Your task to perform on an android device: turn on airplane mode Image 0: 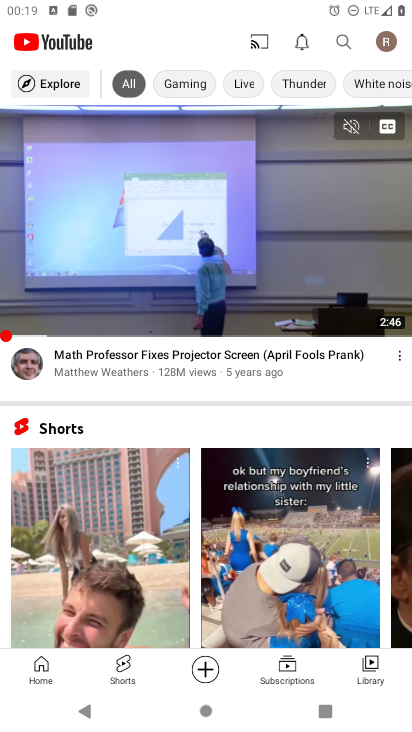
Step 0: press home button
Your task to perform on an android device: turn on airplane mode Image 1: 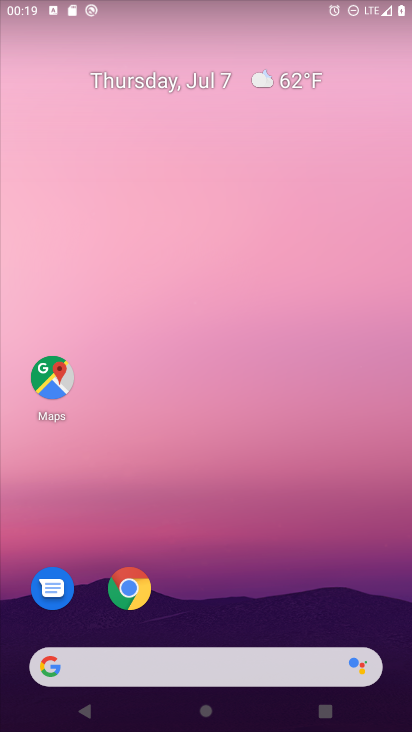
Step 1: drag from (369, 616) to (353, 61)
Your task to perform on an android device: turn on airplane mode Image 2: 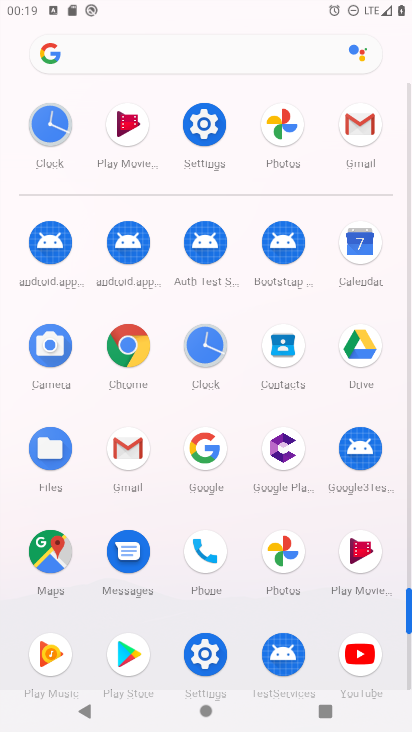
Step 2: click (205, 654)
Your task to perform on an android device: turn on airplane mode Image 3: 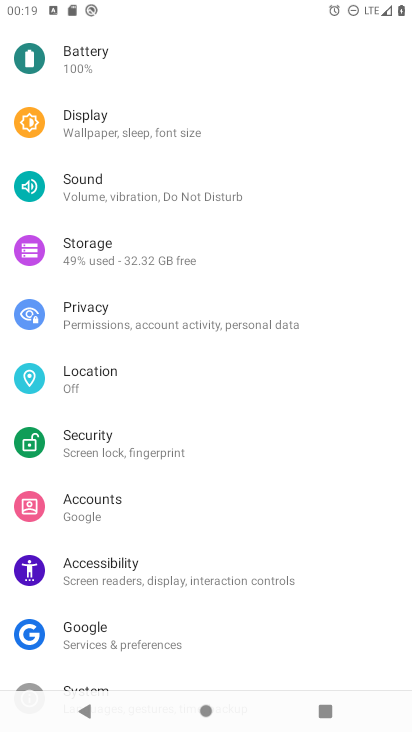
Step 3: drag from (331, 134) to (309, 493)
Your task to perform on an android device: turn on airplane mode Image 4: 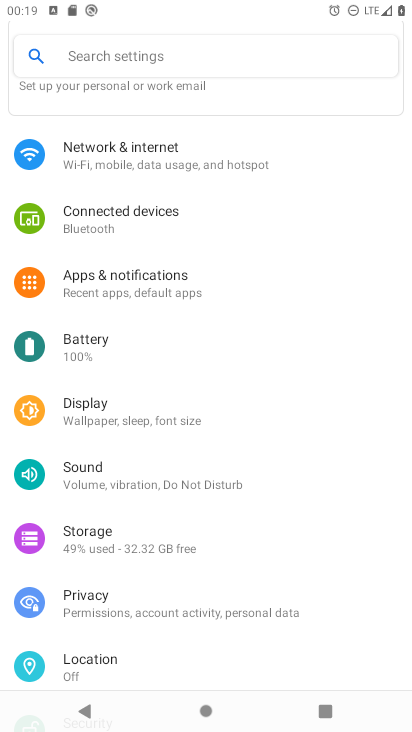
Step 4: click (107, 147)
Your task to perform on an android device: turn on airplane mode Image 5: 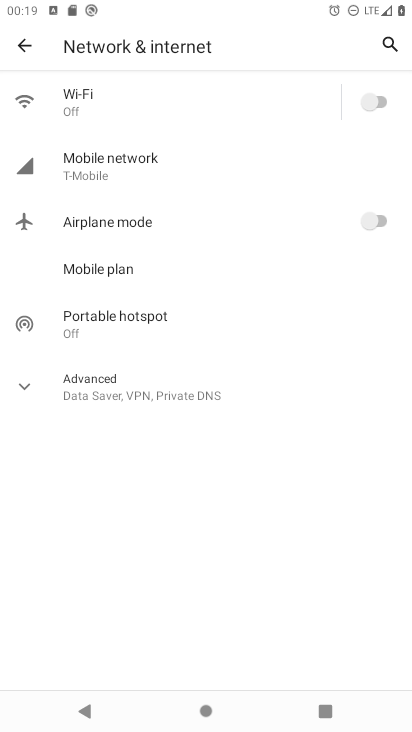
Step 5: click (383, 216)
Your task to perform on an android device: turn on airplane mode Image 6: 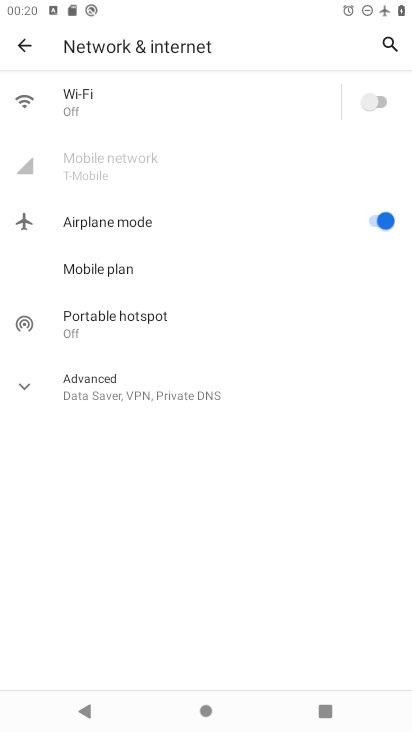
Step 6: task complete